Your task to perform on an android device: see tabs open on other devices in the chrome app Image 0: 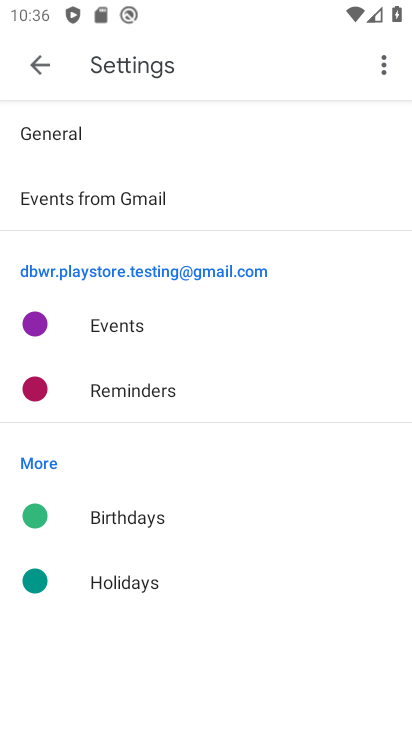
Step 0: press home button
Your task to perform on an android device: see tabs open on other devices in the chrome app Image 1: 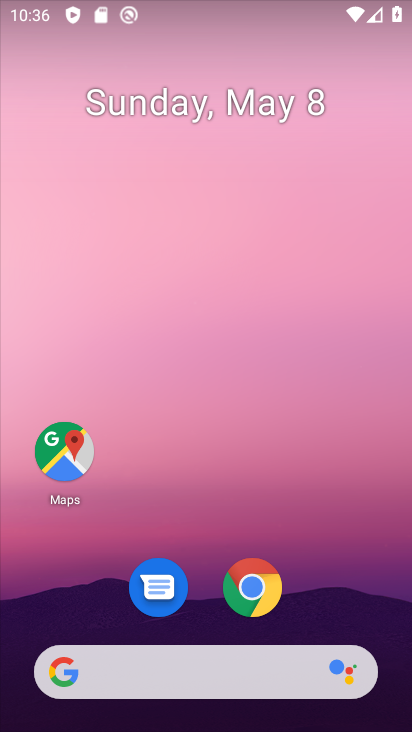
Step 1: drag from (334, 588) to (166, 110)
Your task to perform on an android device: see tabs open on other devices in the chrome app Image 2: 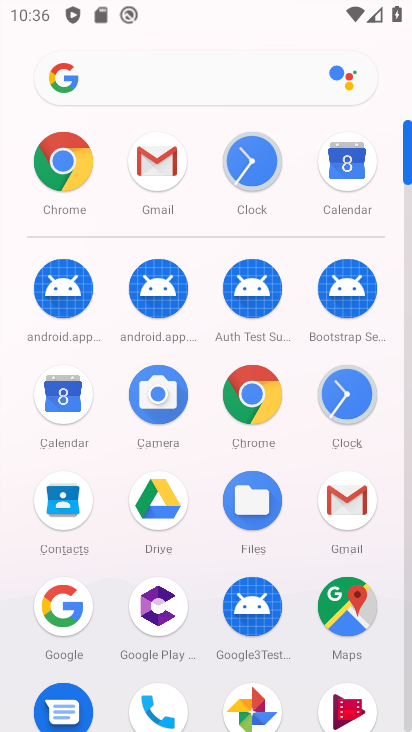
Step 2: click (44, 168)
Your task to perform on an android device: see tabs open on other devices in the chrome app Image 3: 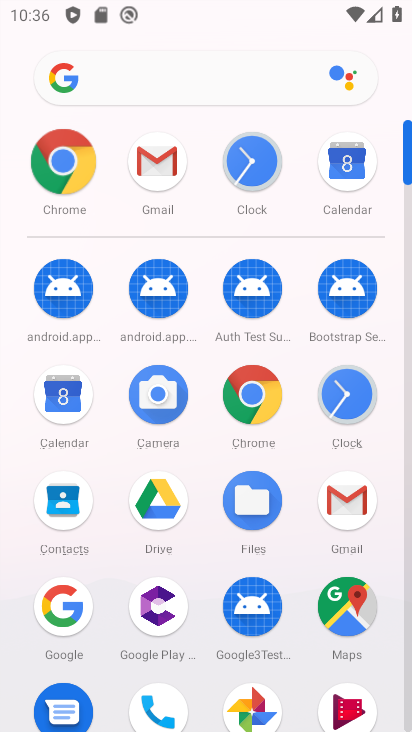
Step 3: click (51, 164)
Your task to perform on an android device: see tabs open on other devices in the chrome app Image 4: 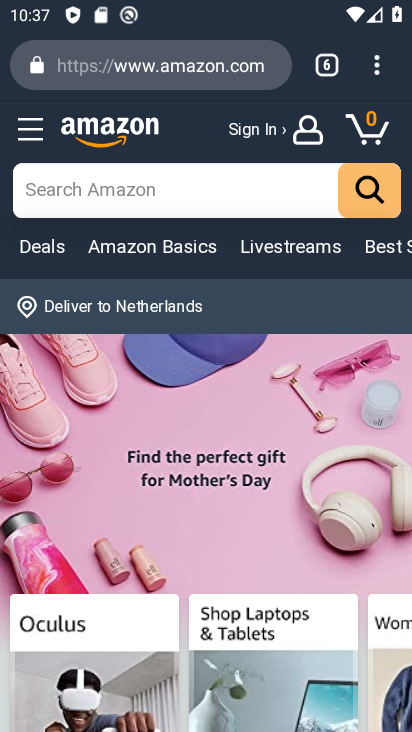
Step 4: drag from (377, 66) to (159, 322)
Your task to perform on an android device: see tabs open on other devices in the chrome app Image 5: 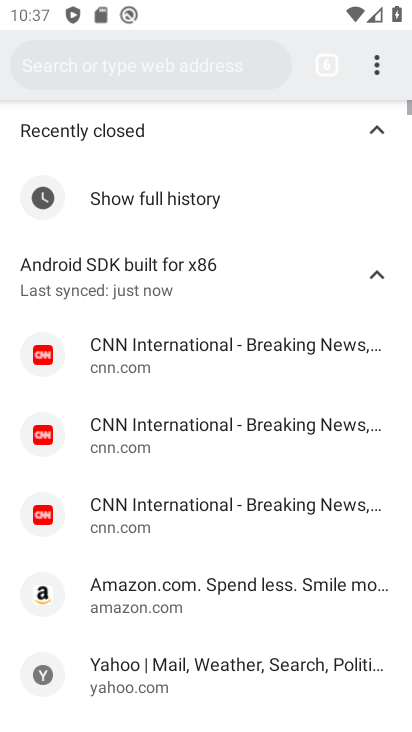
Step 5: click (159, 322)
Your task to perform on an android device: see tabs open on other devices in the chrome app Image 6: 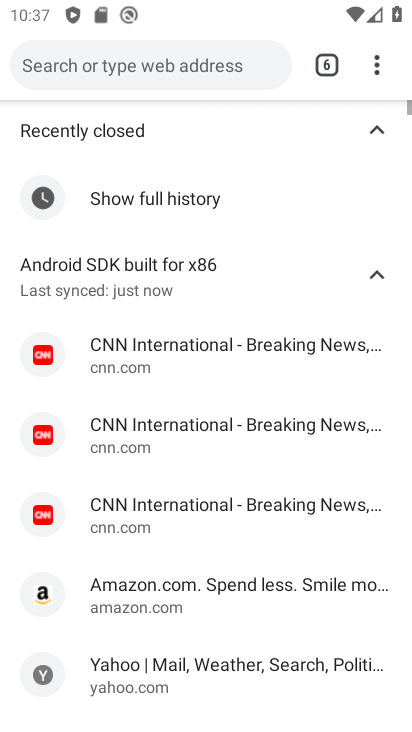
Step 6: click (159, 322)
Your task to perform on an android device: see tabs open on other devices in the chrome app Image 7: 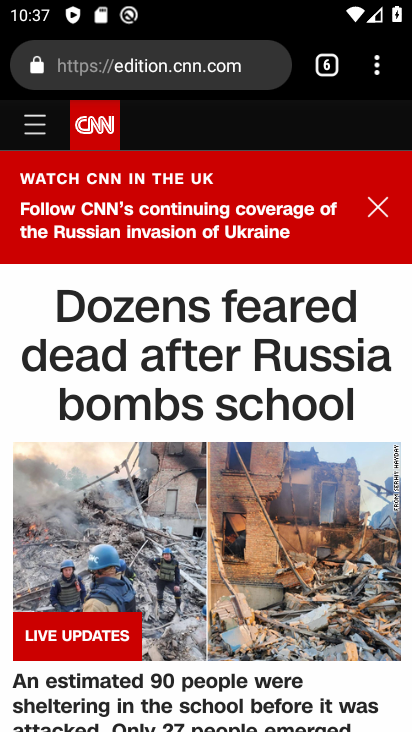
Step 7: task complete